Your task to perform on an android device: Open Amazon Image 0: 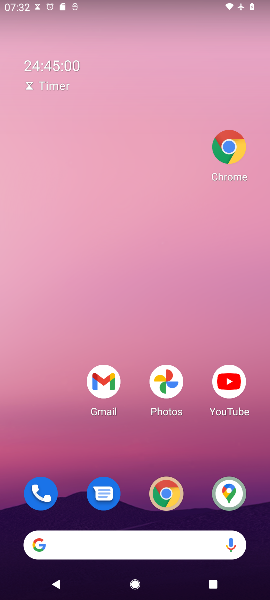
Step 0: press home button
Your task to perform on an android device: Open Amazon Image 1: 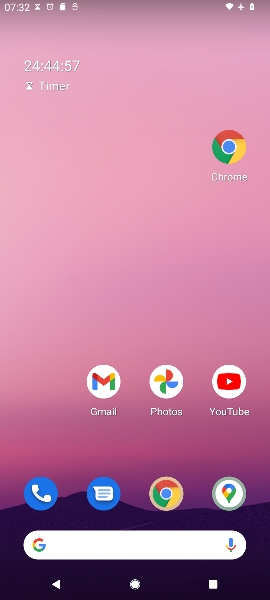
Step 1: click (38, 550)
Your task to perform on an android device: Open Amazon Image 2: 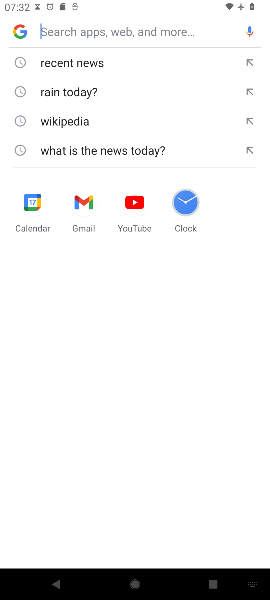
Step 2: type "Amazon"
Your task to perform on an android device: Open Amazon Image 3: 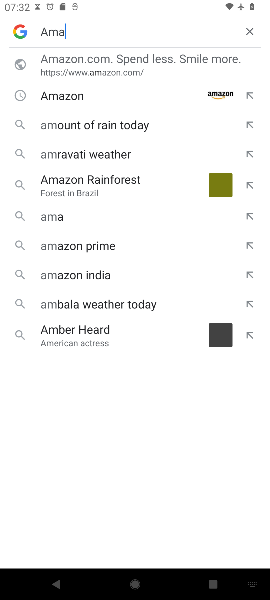
Step 3: press enter
Your task to perform on an android device: Open Amazon Image 4: 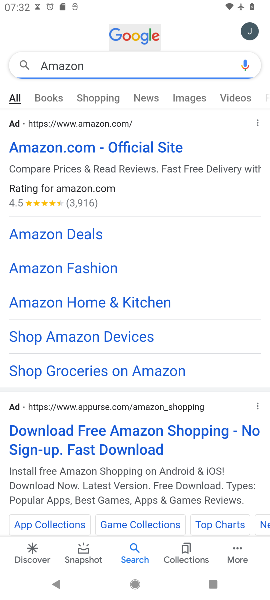
Step 4: click (75, 156)
Your task to perform on an android device: Open Amazon Image 5: 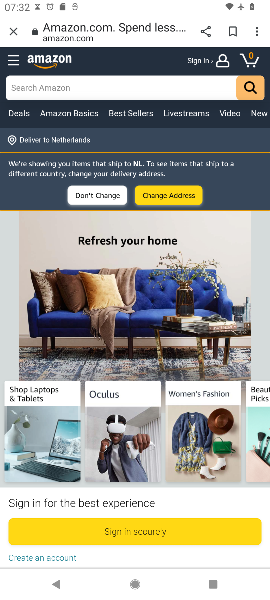
Step 5: task complete